Your task to perform on an android device: toggle data saver in the chrome app Image 0: 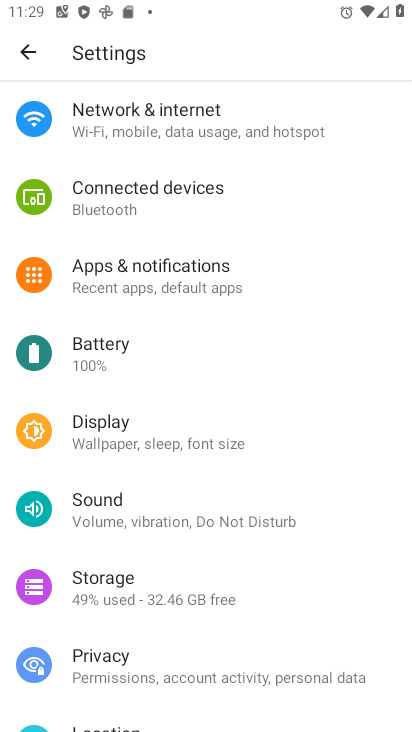
Step 0: press home button
Your task to perform on an android device: toggle data saver in the chrome app Image 1: 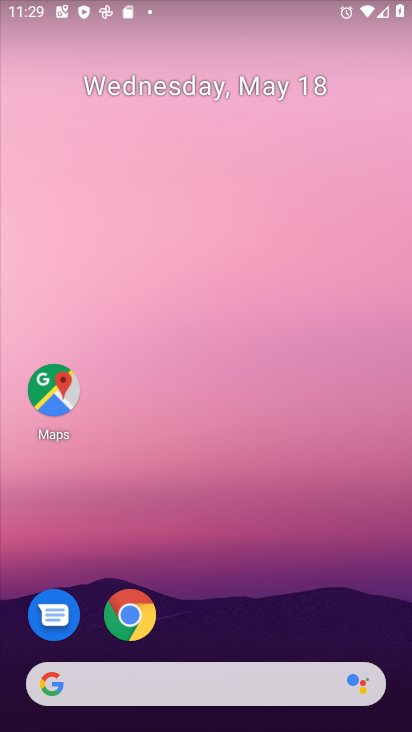
Step 1: drag from (190, 664) to (189, 251)
Your task to perform on an android device: toggle data saver in the chrome app Image 2: 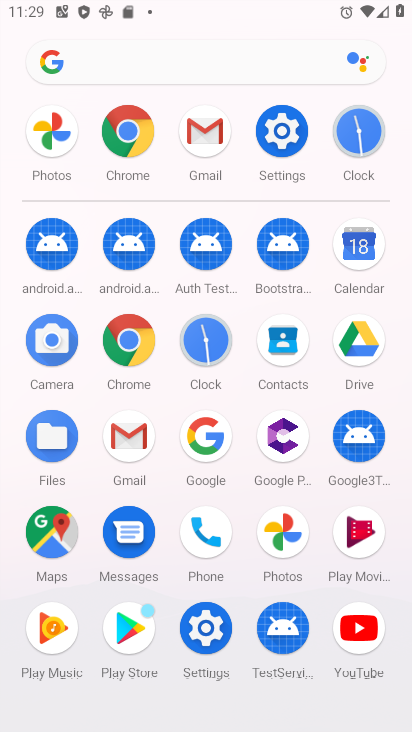
Step 2: click (143, 132)
Your task to perform on an android device: toggle data saver in the chrome app Image 3: 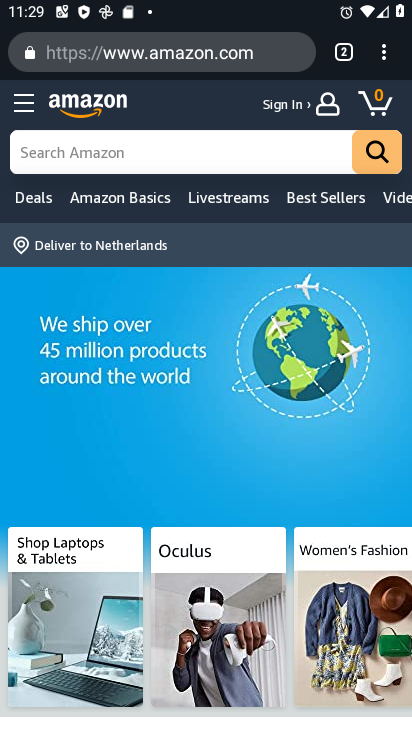
Step 3: click (388, 57)
Your task to perform on an android device: toggle data saver in the chrome app Image 4: 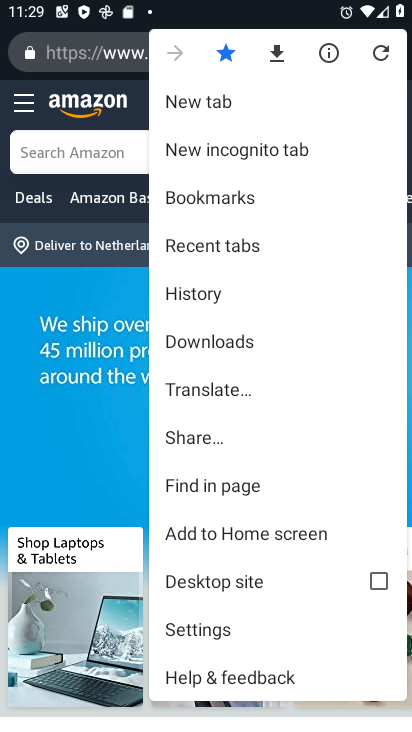
Step 4: click (204, 625)
Your task to perform on an android device: toggle data saver in the chrome app Image 5: 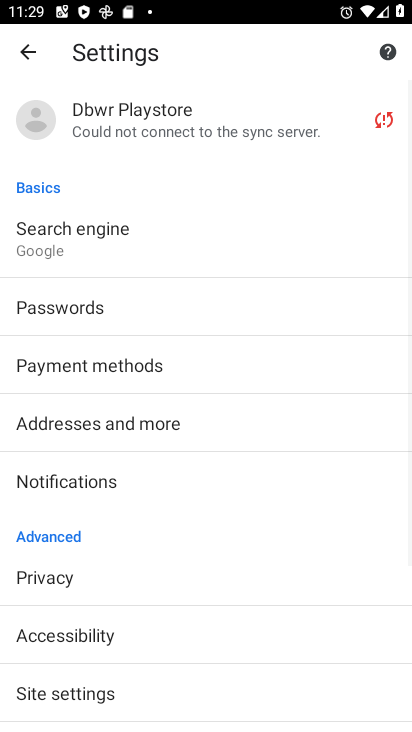
Step 5: drag from (85, 690) to (85, 384)
Your task to perform on an android device: toggle data saver in the chrome app Image 6: 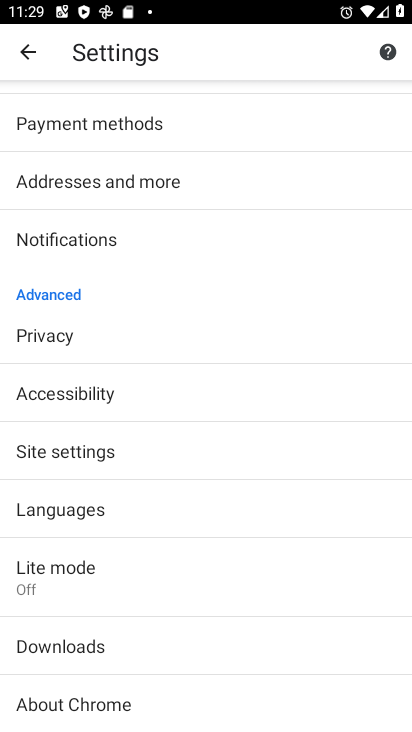
Step 6: click (69, 456)
Your task to perform on an android device: toggle data saver in the chrome app Image 7: 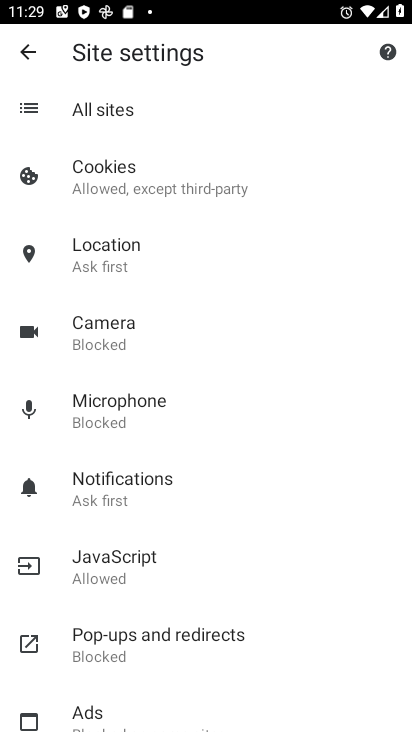
Step 7: click (30, 52)
Your task to perform on an android device: toggle data saver in the chrome app Image 8: 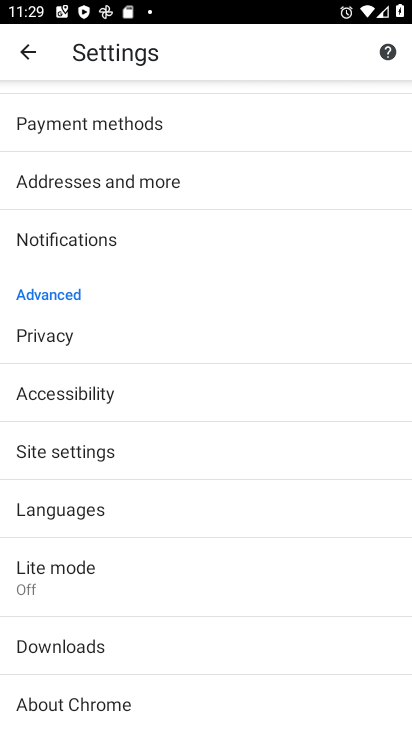
Step 8: click (53, 586)
Your task to perform on an android device: toggle data saver in the chrome app Image 9: 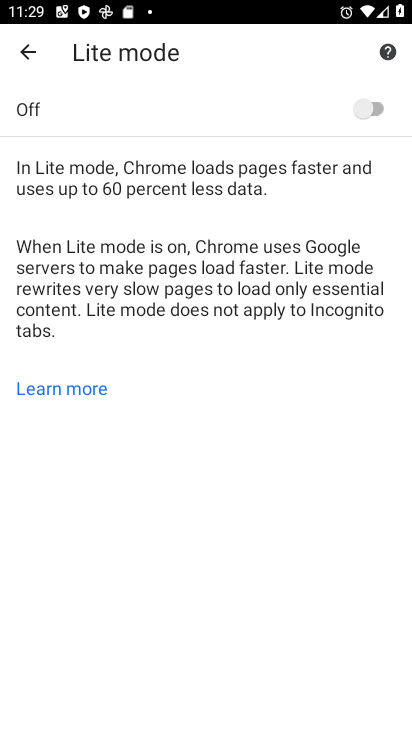
Step 9: click (49, 574)
Your task to perform on an android device: toggle data saver in the chrome app Image 10: 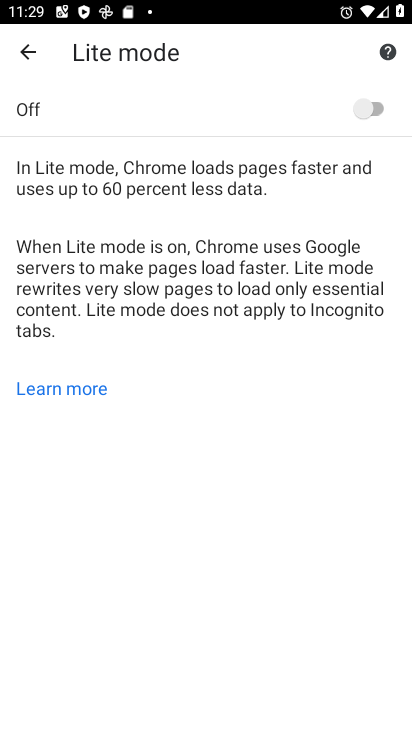
Step 10: click (373, 105)
Your task to perform on an android device: toggle data saver in the chrome app Image 11: 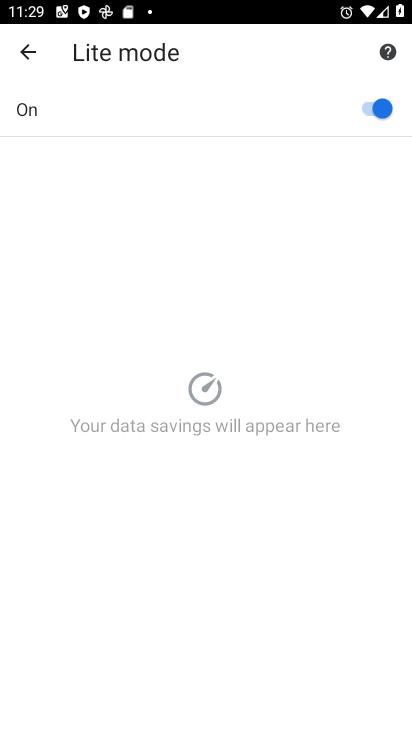
Step 11: task complete